Your task to perform on an android device: Open Reddit.com Image 0: 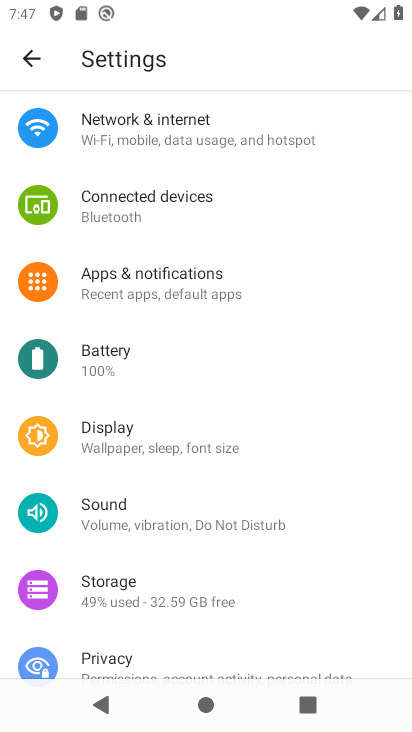
Step 0: press home button
Your task to perform on an android device: Open Reddit.com Image 1: 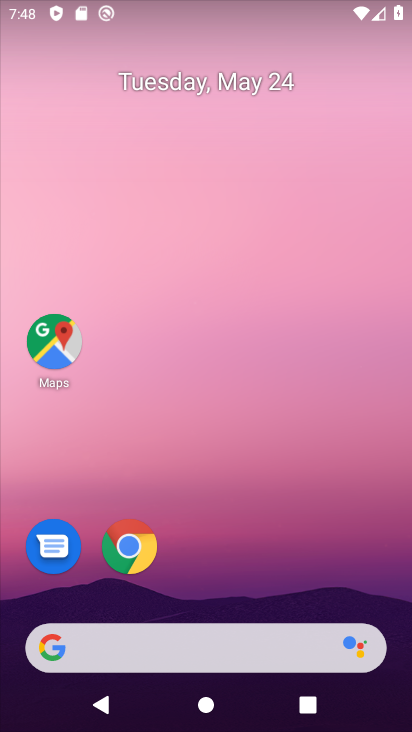
Step 1: click (262, 642)
Your task to perform on an android device: Open Reddit.com Image 2: 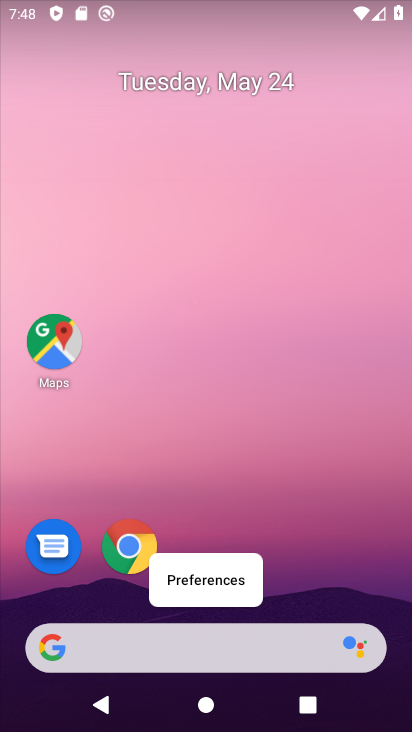
Step 2: click (264, 646)
Your task to perform on an android device: Open Reddit.com Image 3: 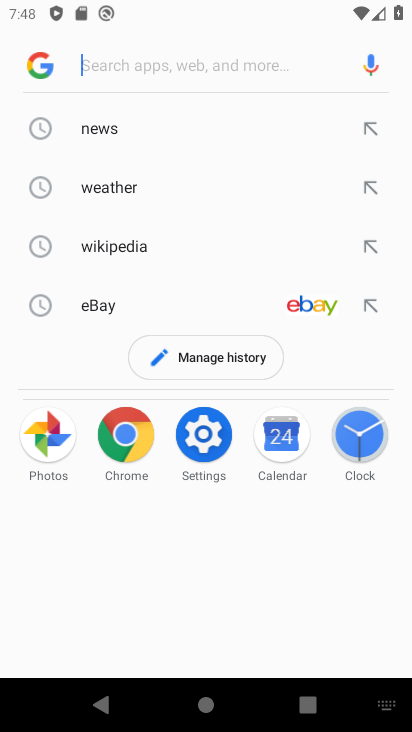
Step 3: type "reddit.com"
Your task to perform on an android device: Open Reddit.com Image 4: 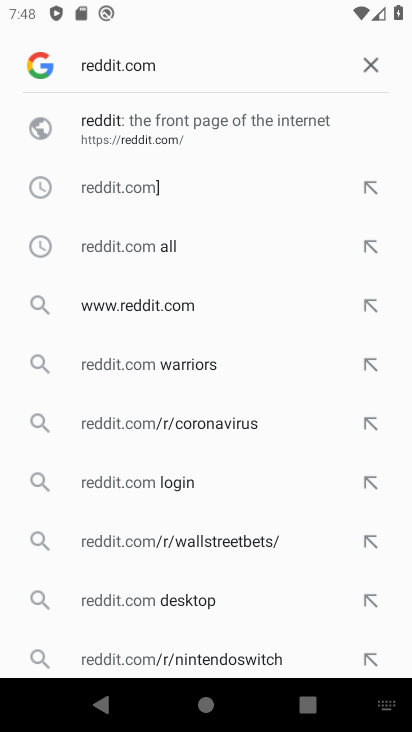
Step 4: click (98, 126)
Your task to perform on an android device: Open Reddit.com Image 5: 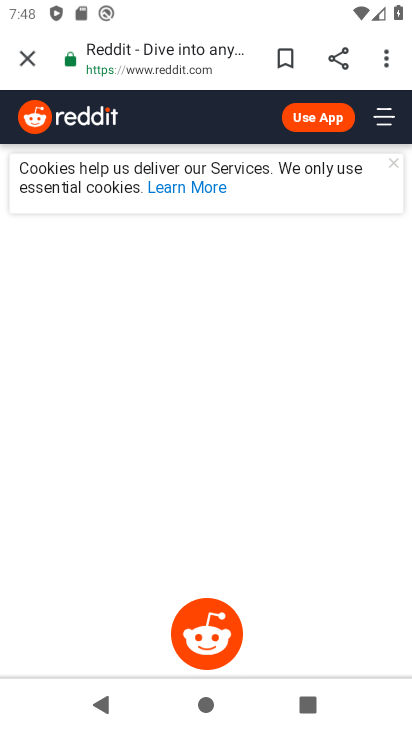
Step 5: task complete